Your task to perform on an android device: Go to display settings Image 0: 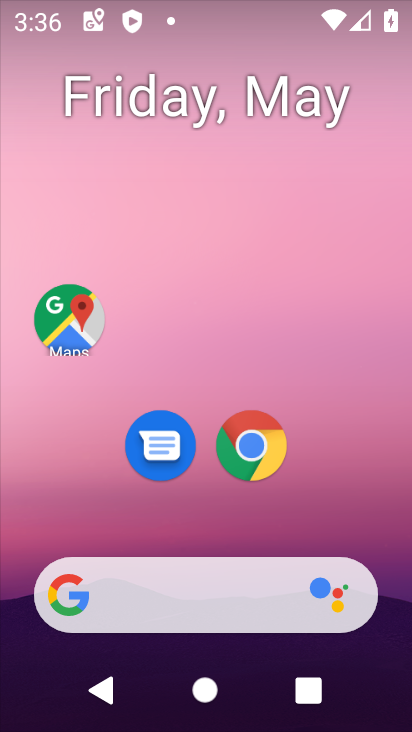
Step 0: drag from (205, 532) to (219, 6)
Your task to perform on an android device: Go to display settings Image 1: 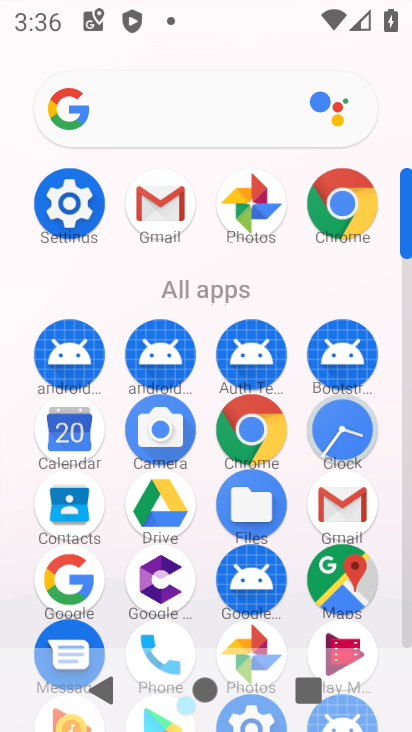
Step 1: click (89, 212)
Your task to perform on an android device: Go to display settings Image 2: 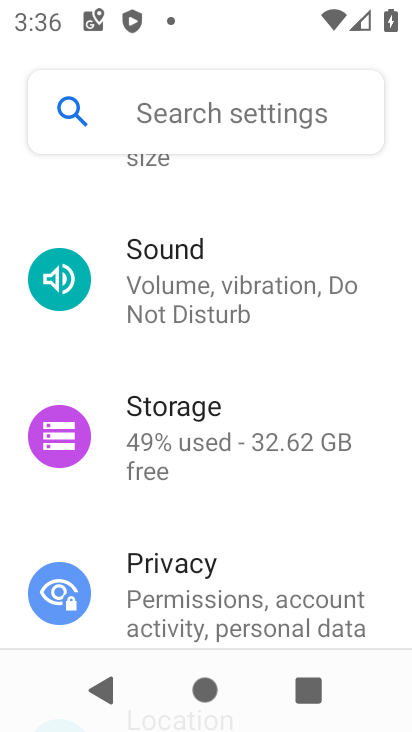
Step 2: drag from (234, 504) to (223, 684)
Your task to perform on an android device: Go to display settings Image 3: 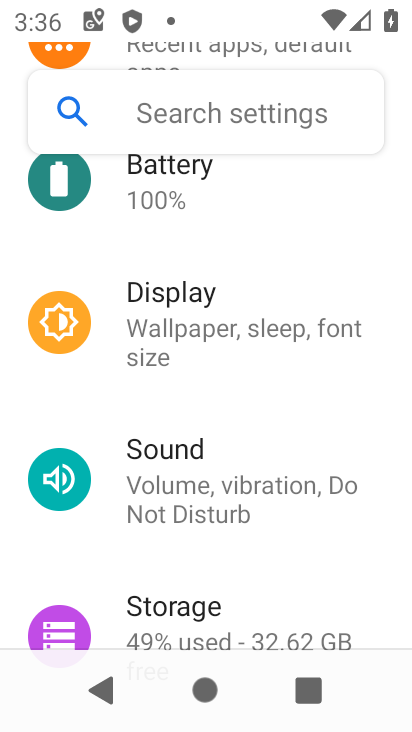
Step 3: click (218, 333)
Your task to perform on an android device: Go to display settings Image 4: 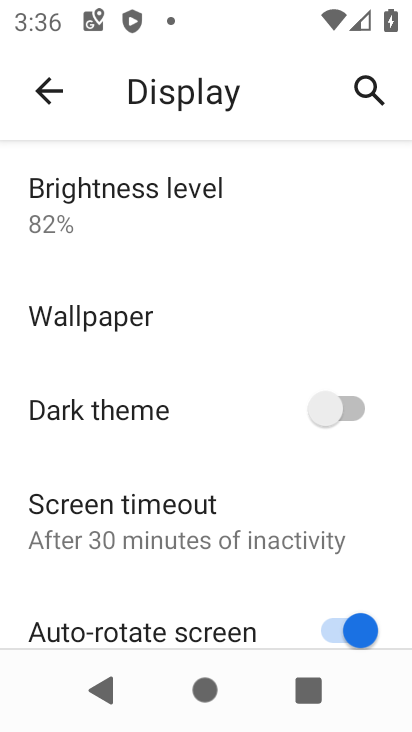
Step 4: task complete